Your task to perform on an android device: Turn on the flashlight Image 0: 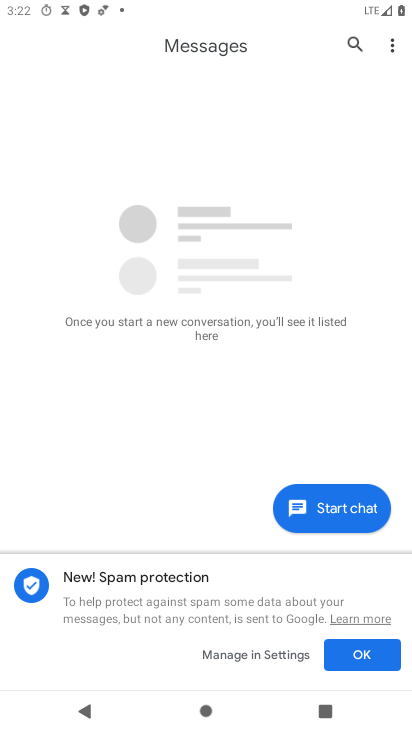
Step 0: press home button
Your task to perform on an android device: Turn on the flashlight Image 1: 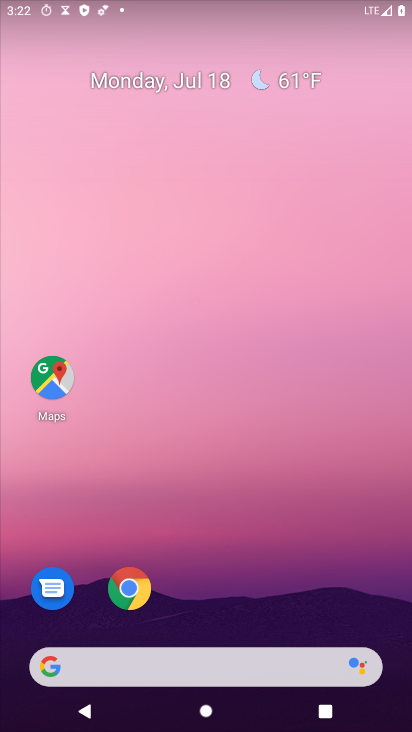
Step 1: drag from (302, 529) to (282, 16)
Your task to perform on an android device: Turn on the flashlight Image 2: 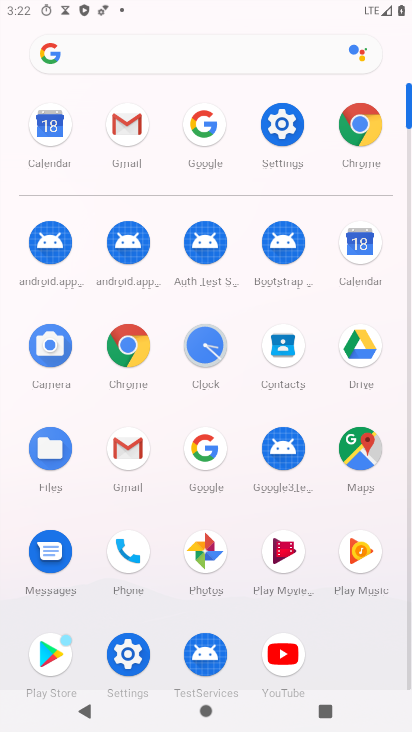
Step 2: click (277, 133)
Your task to perform on an android device: Turn on the flashlight Image 3: 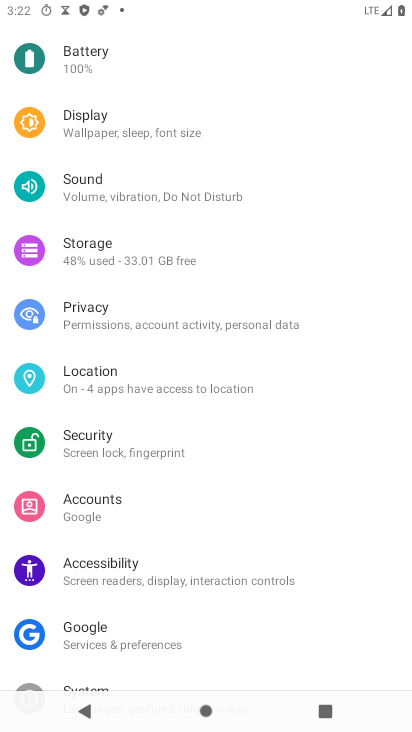
Step 3: task complete